Your task to perform on an android device: Search for seafood restaurants on Google Maps Image 0: 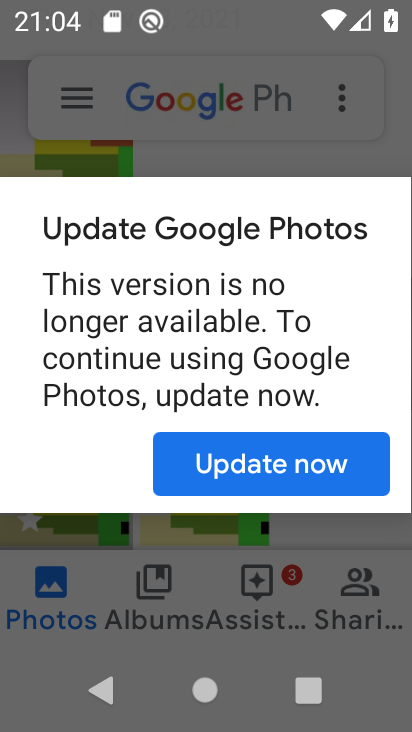
Step 0: press home button
Your task to perform on an android device: Search for seafood restaurants on Google Maps Image 1: 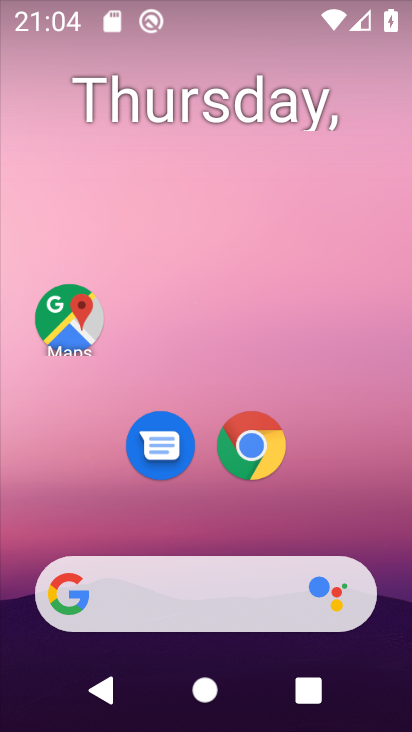
Step 1: click (60, 325)
Your task to perform on an android device: Search for seafood restaurants on Google Maps Image 2: 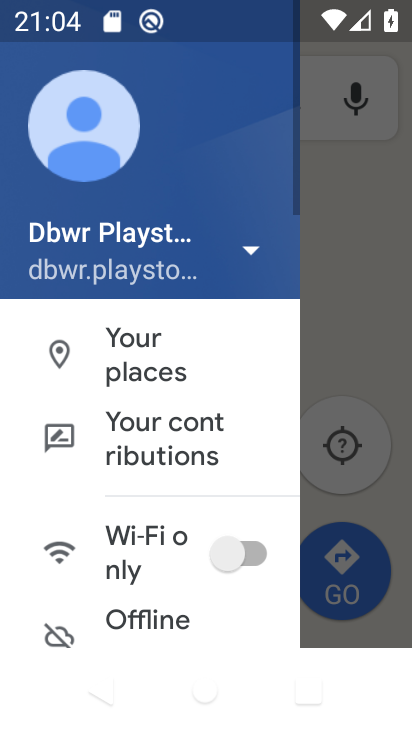
Step 2: click (363, 245)
Your task to perform on an android device: Search for seafood restaurants on Google Maps Image 3: 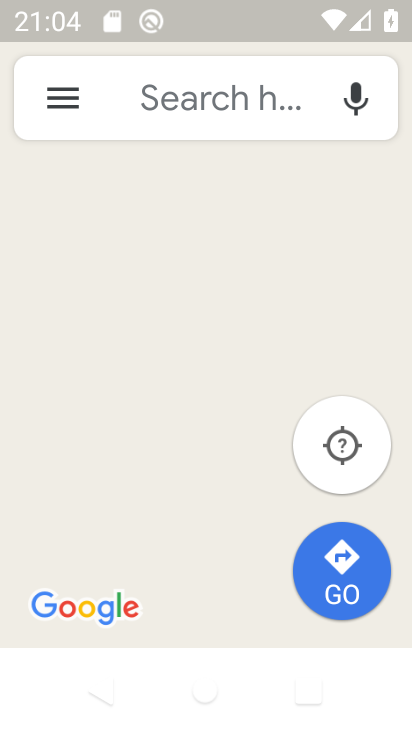
Step 3: click (248, 117)
Your task to perform on an android device: Search for seafood restaurants on Google Maps Image 4: 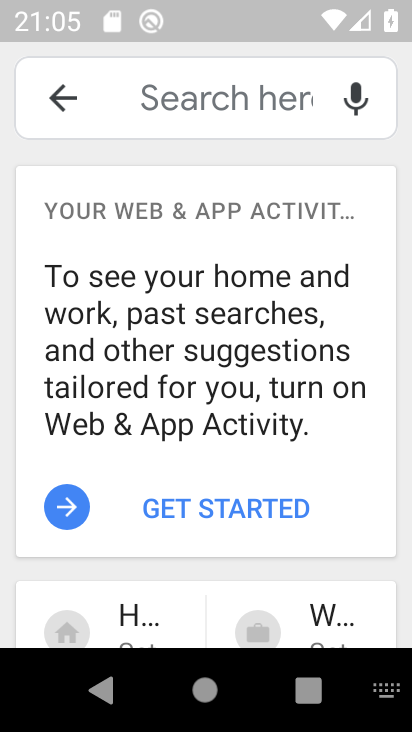
Step 4: type "seafood restaurants"
Your task to perform on an android device: Search for seafood restaurants on Google Maps Image 5: 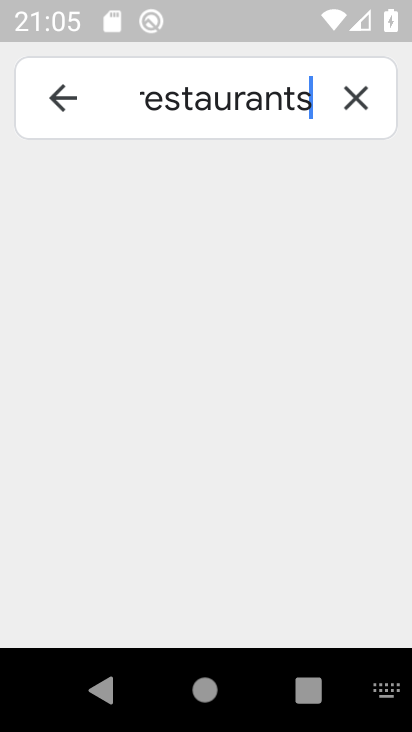
Step 5: click (240, 273)
Your task to perform on an android device: Search for seafood restaurants on Google Maps Image 6: 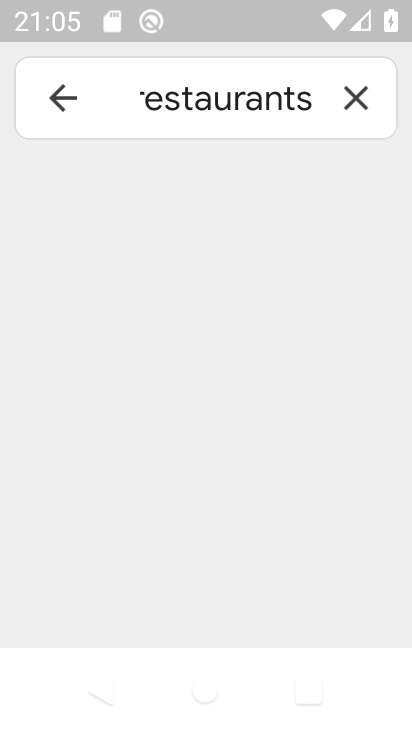
Step 6: drag from (186, 213) to (192, 480)
Your task to perform on an android device: Search for seafood restaurants on Google Maps Image 7: 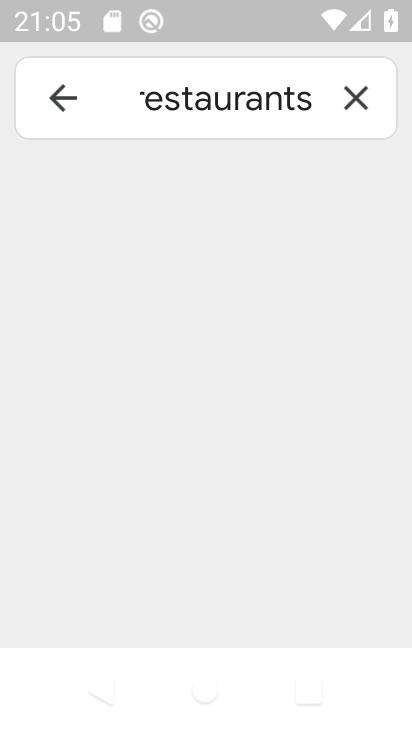
Step 7: drag from (195, 479) to (201, 162)
Your task to perform on an android device: Search for seafood restaurants on Google Maps Image 8: 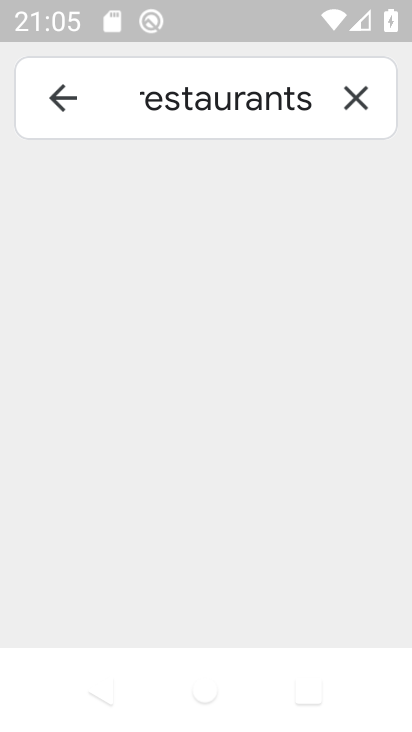
Step 8: click (201, 162)
Your task to perform on an android device: Search for seafood restaurants on Google Maps Image 9: 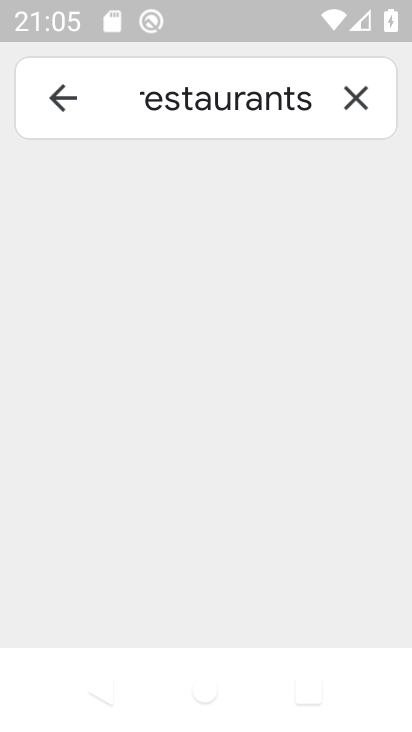
Step 9: task complete